Your task to perform on an android device: Go to Google maps Image 0: 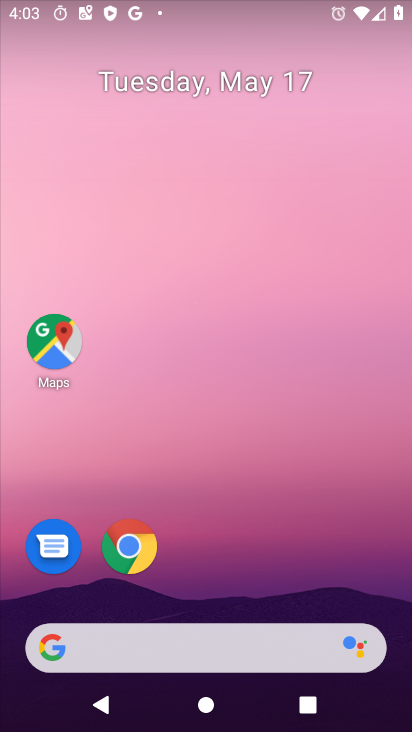
Step 0: click (69, 342)
Your task to perform on an android device: Go to Google maps Image 1: 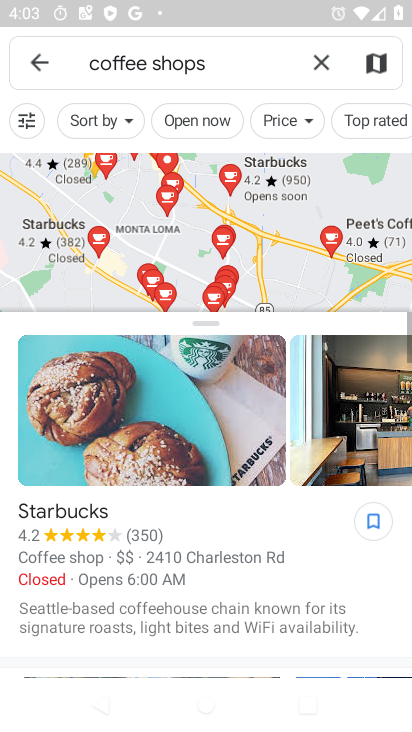
Step 1: click (30, 61)
Your task to perform on an android device: Go to Google maps Image 2: 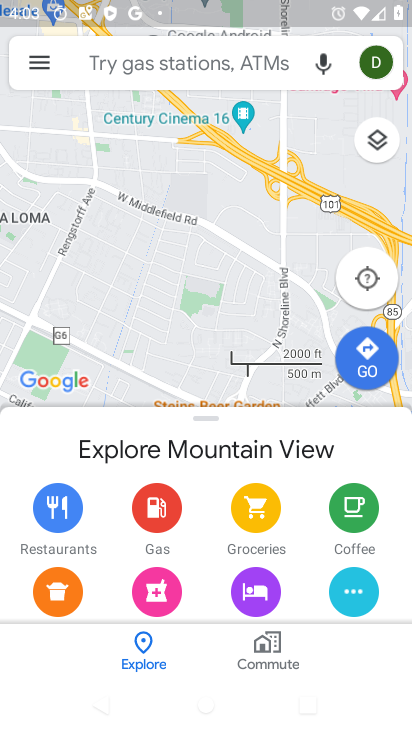
Step 2: task complete